Your task to perform on an android device: Open Android settings Image 0: 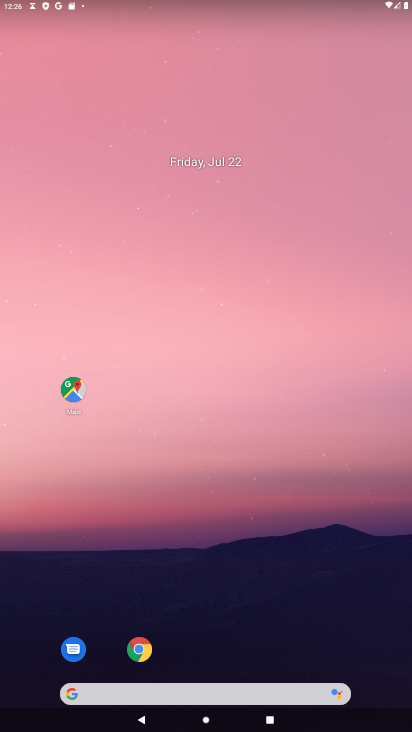
Step 0: drag from (293, 633) to (199, 225)
Your task to perform on an android device: Open Android settings Image 1: 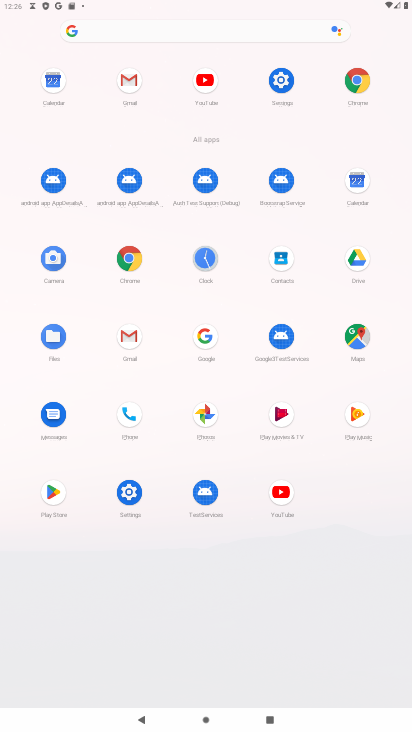
Step 1: click (133, 496)
Your task to perform on an android device: Open Android settings Image 2: 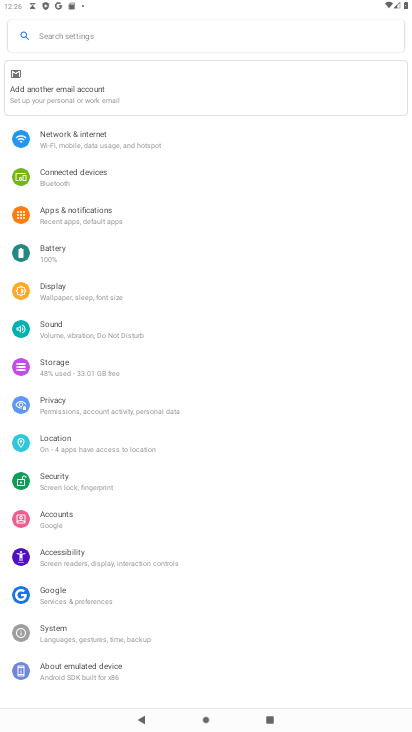
Step 2: task complete